Your task to perform on an android device: turn off airplane mode Image 0: 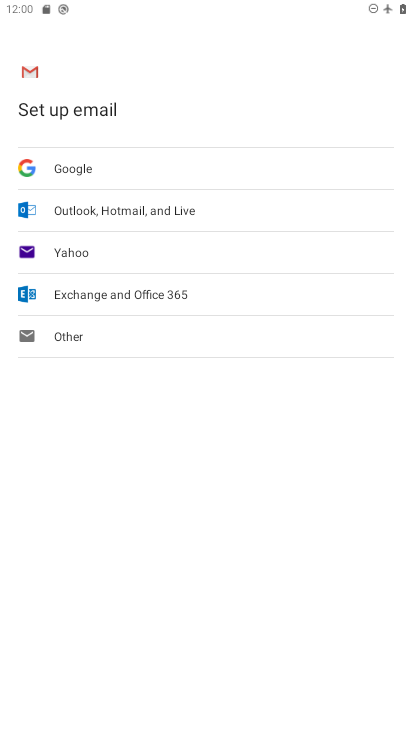
Step 0: press home button
Your task to perform on an android device: turn off airplane mode Image 1: 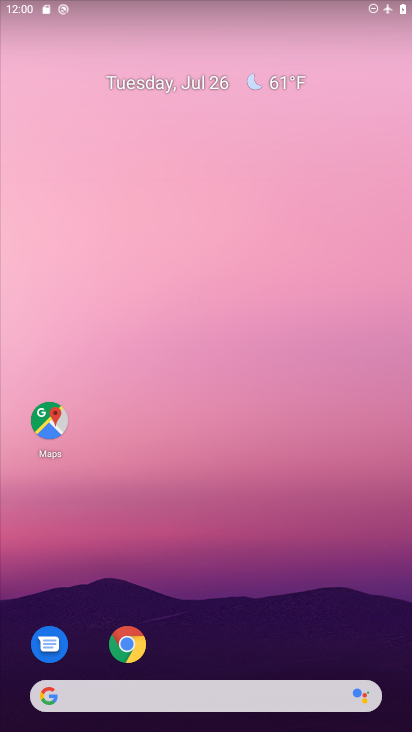
Step 1: drag from (273, 676) to (190, 168)
Your task to perform on an android device: turn off airplane mode Image 2: 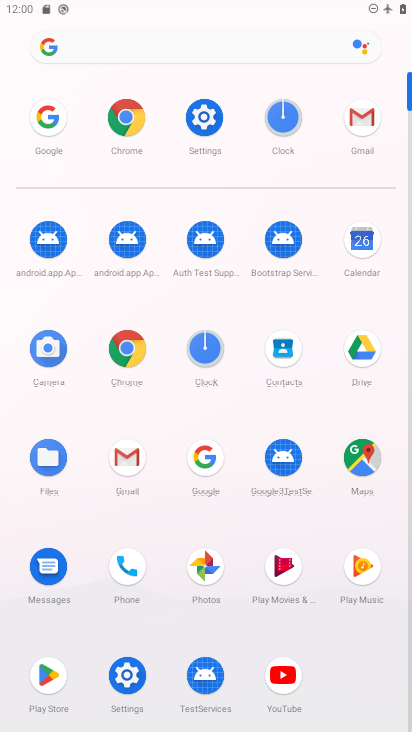
Step 2: click (210, 112)
Your task to perform on an android device: turn off airplane mode Image 3: 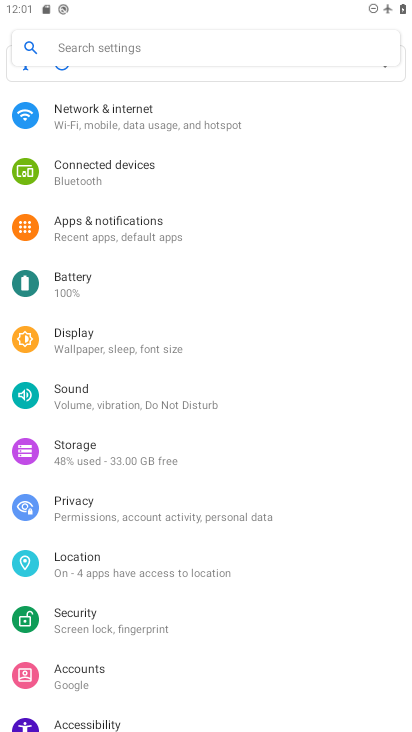
Step 3: click (102, 108)
Your task to perform on an android device: turn off airplane mode Image 4: 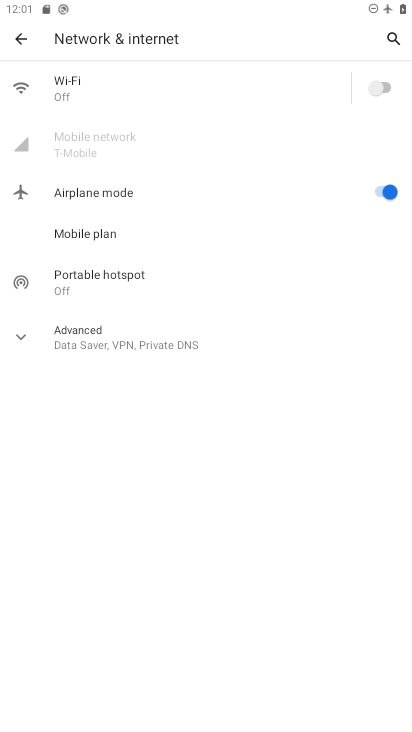
Step 4: click (376, 192)
Your task to perform on an android device: turn off airplane mode Image 5: 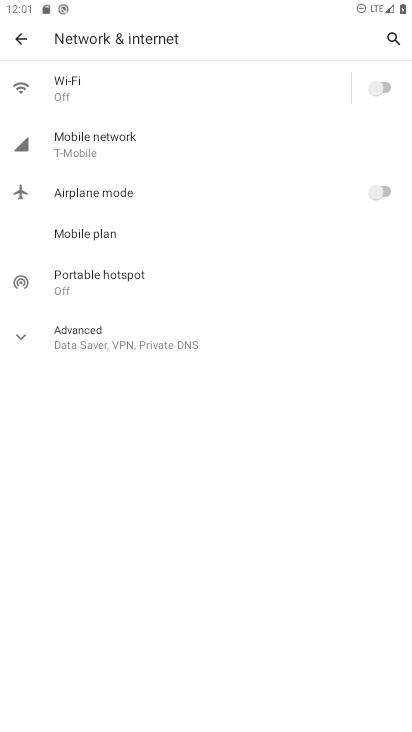
Step 5: task complete